Your task to perform on an android device: show emergency info Image 0: 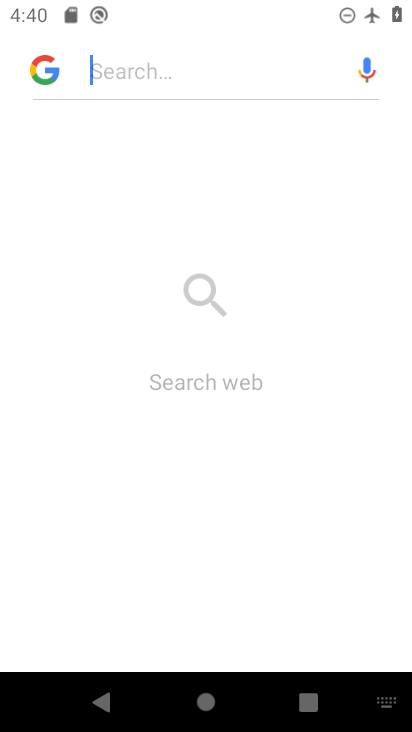
Step 0: press home button
Your task to perform on an android device: show emergency info Image 1: 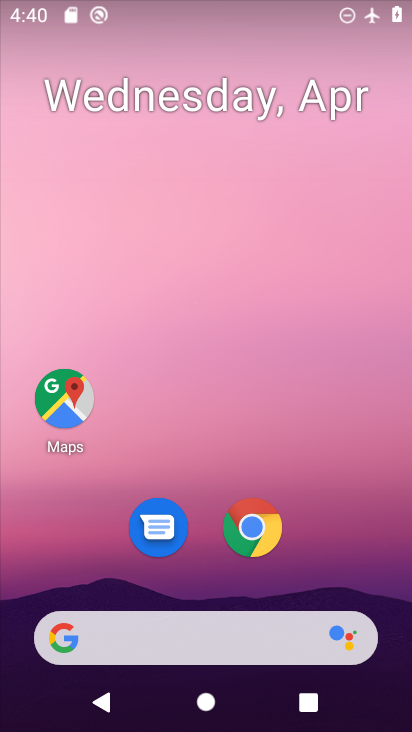
Step 1: drag from (394, 516) to (376, 14)
Your task to perform on an android device: show emergency info Image 2: 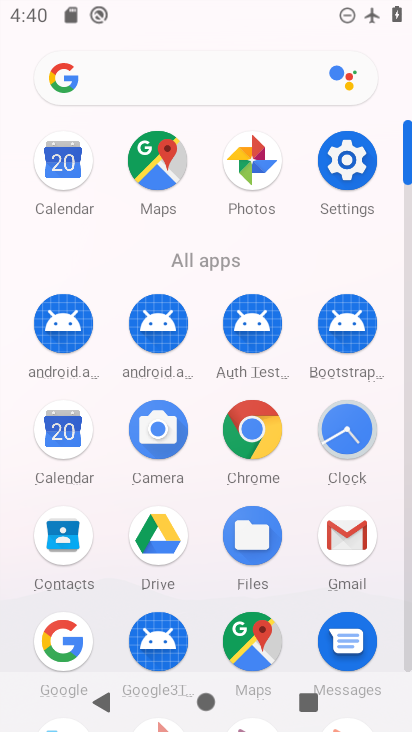
Step 2: click (349, 174)
Your task to perform on an android device: show emergency info Image 3: 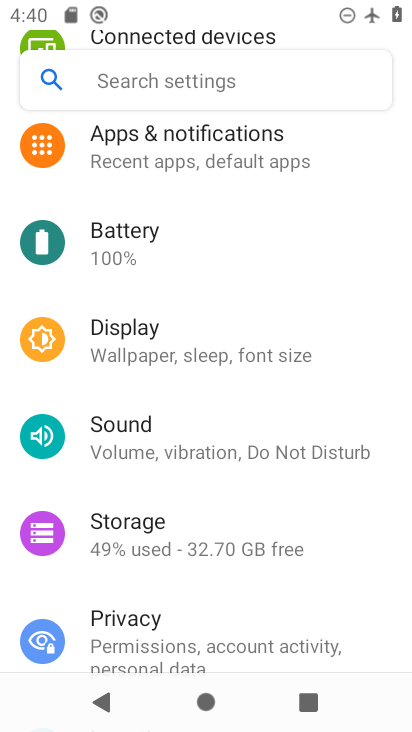
Step 3: drag from (301, 591) to (293, 126)
Your task to perform on an android device: show emergency info Image 4: 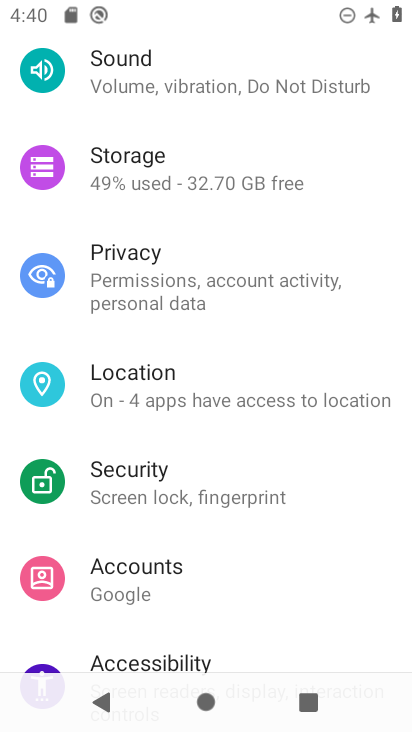
Step 4: drag from (217, 518) to (237, 143)
Your task to perform on an android device: show emergency info Image 5: 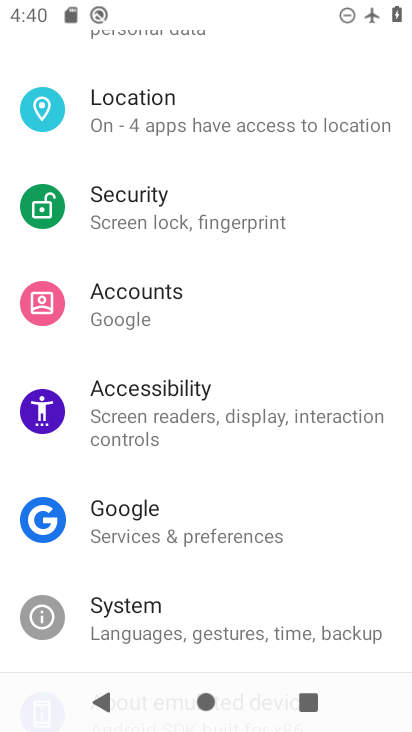
Step 5: drag from (296, 529) to (306, 192)
Your task to perform on an android device: show emergency info Image 6: 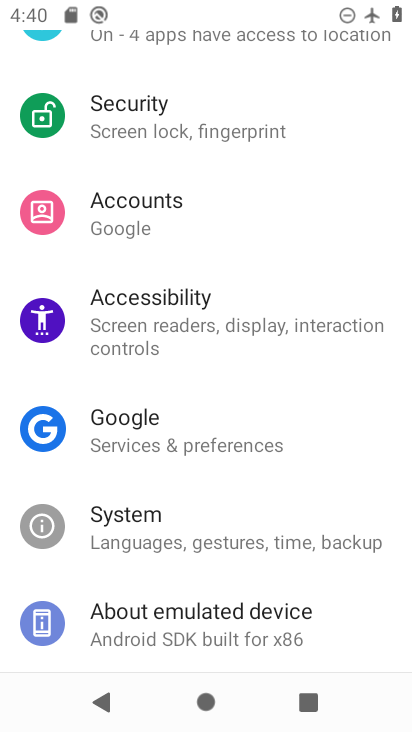
Step 6: click (169, 644)
Your task to perform on an android device: show emergency info Image 7: 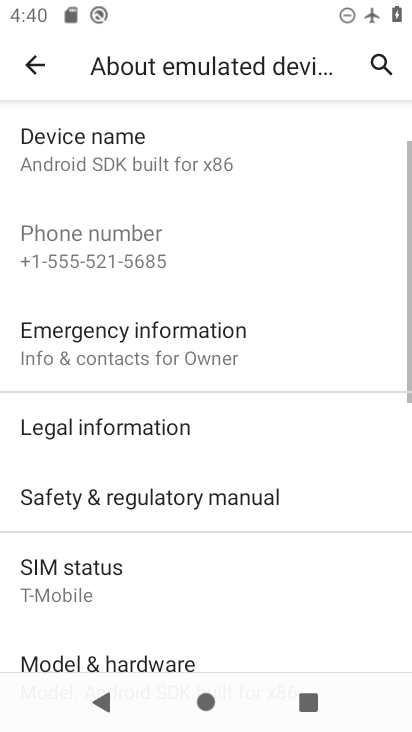
Step 7: click (149, 343)
Your task to perform on an android device: show emergency info Image 8: 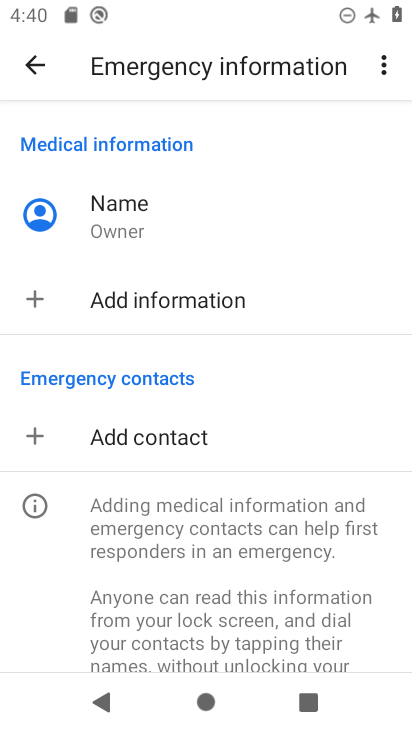
Step 8: task complete